Your task to perform on an android device: open a bookmark in the chrome app Image 0: 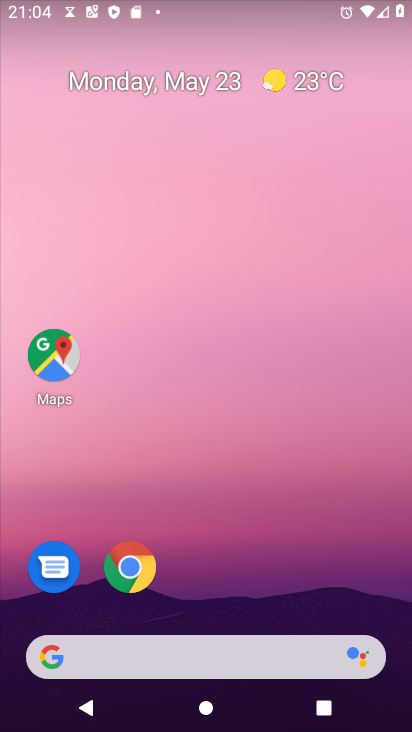
Step 0: drag from (290, 613) to (290, 269)
Your task to perform on an android device: open a bookmark in the chrome app Image 1: 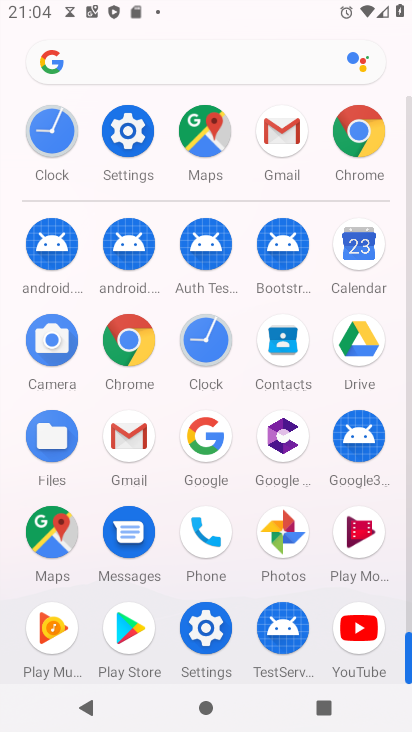
Step 1: click (141, 330)
Your task to perform on an android device: open a bookmark in the chrome app Image 2: 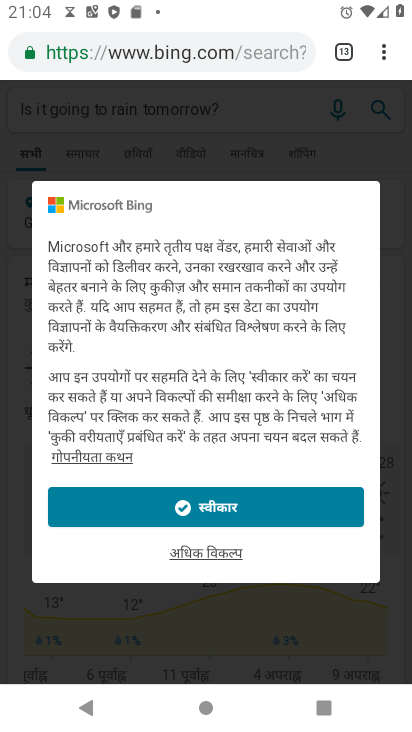
Step 2: click (373, 51)
Your task to perform on an android device: open a bookmark in the chrome app Image 3: 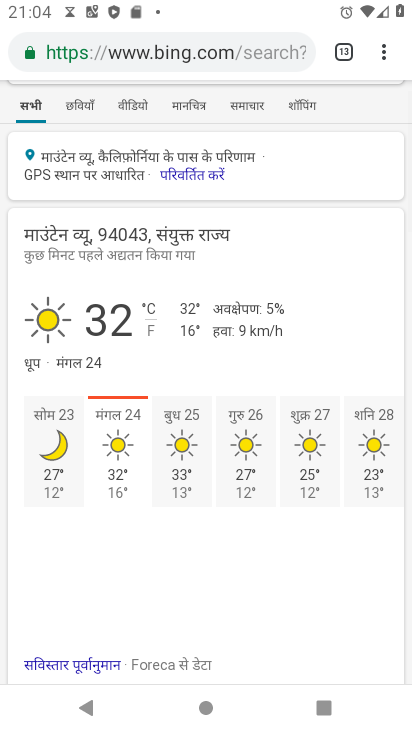
Step 3: click (383, 53)
Your task to perform on an android device: open a bookmark in the chrome app Image 4: 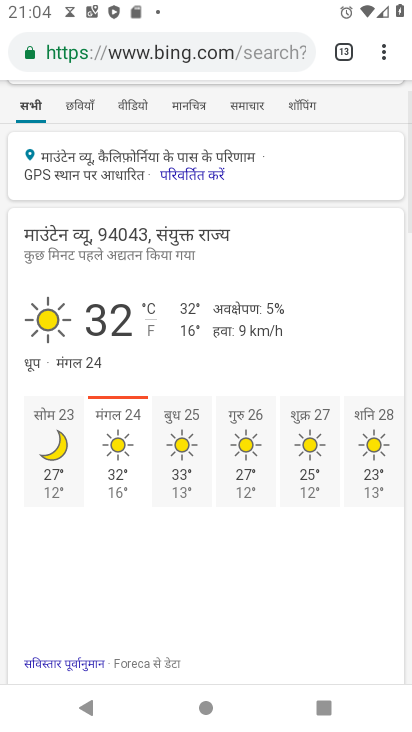
Step 4: click (383, 53)
Your task to perform on an android device: open a bookmark in the chrome app Image 5: 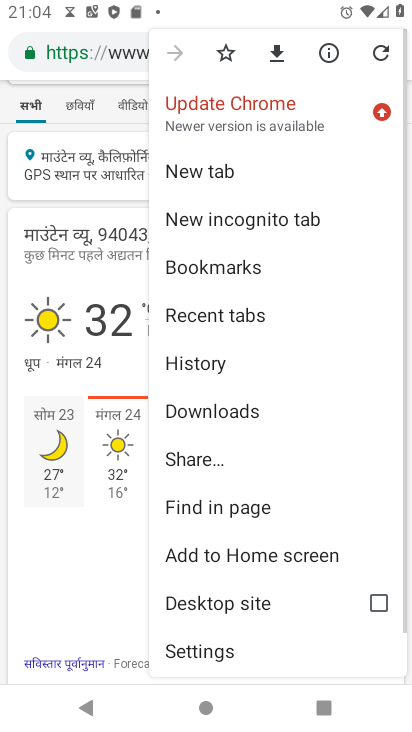
Step 5: click (217, 274)
Your task to perform on an android device: open a bookmark in the chrome app Image 6: 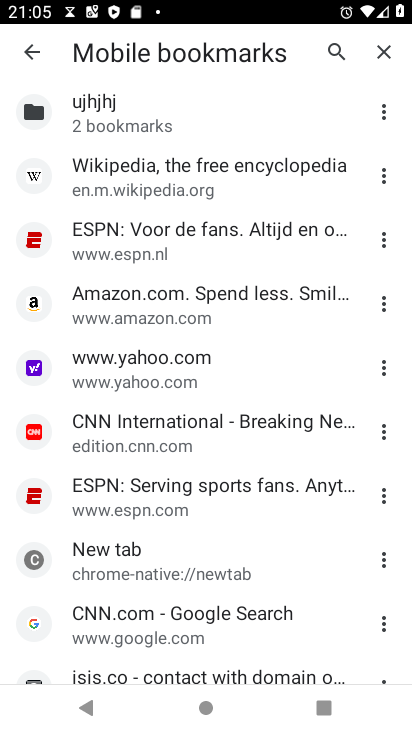
Step 6: task complete